Your task to perform on an android device: change your default location settings in chrome Image 0: 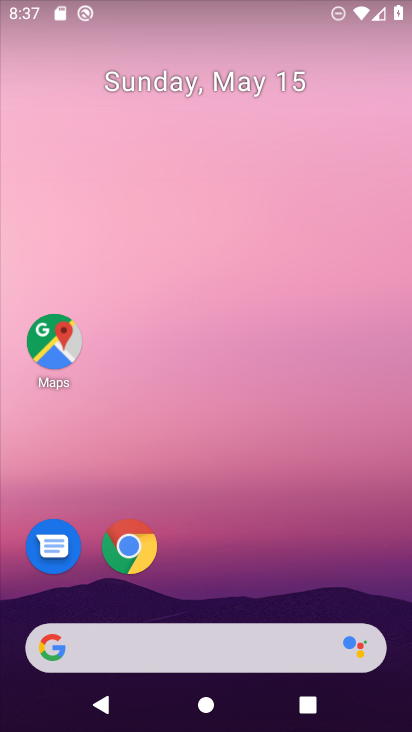
Step 0: click (131, 533)
Your task to perform on an android device: change your default location settings in chrome Image 1: 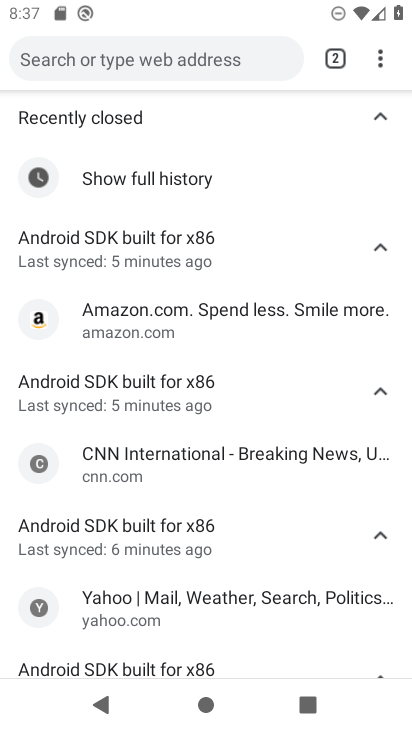
Step 1: click (378, 59)
Your task to perform on an android device: change your default location settings in chrome Image 2: 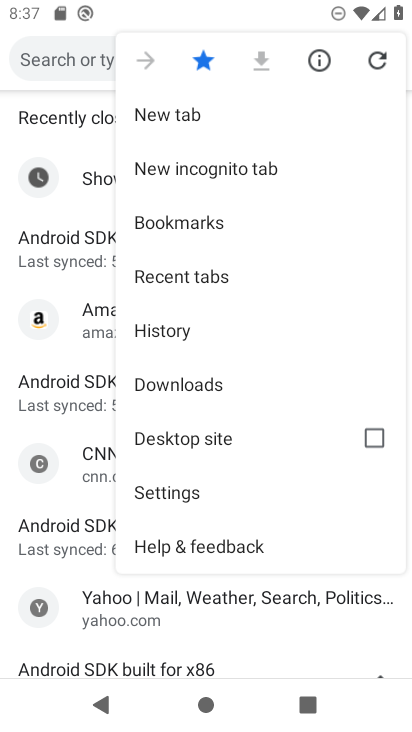
Step 2: click (210, 494)
Your task to perform on an android device: change your default location settings in chrome Image 3: 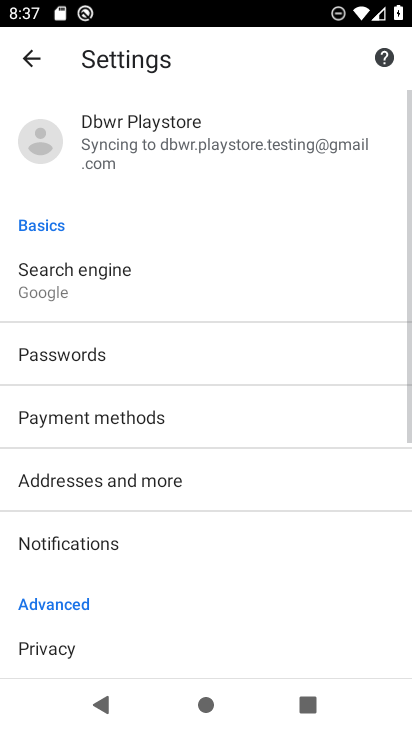
Step 3: drag from (220, 577) to (224, 218)
Your task to perform on an android device: change your default location settings in chrome Image 4: 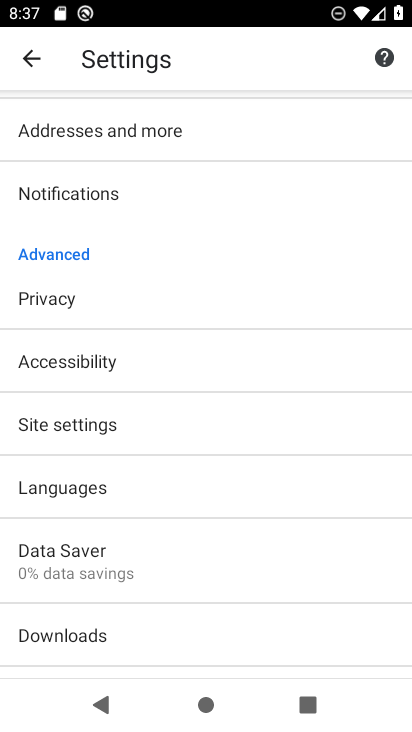
Step 4: click (222, 420)
Your task to perform on an android device: change your default location settings in chrome Image 5: 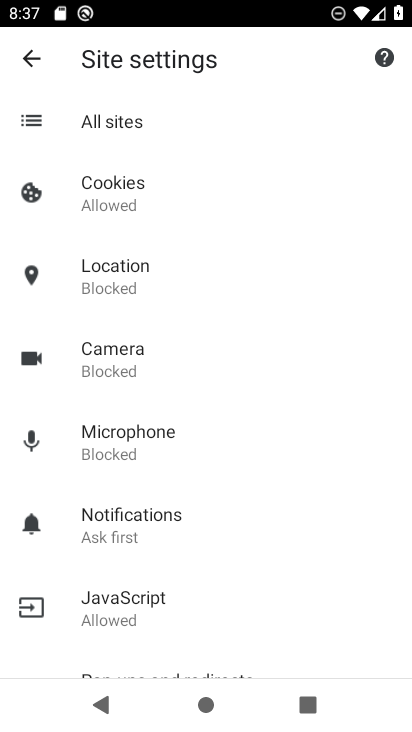
Step 5: click (177, 268)
Your task to perform on an android device: change your default location settings in chrome Image 6: 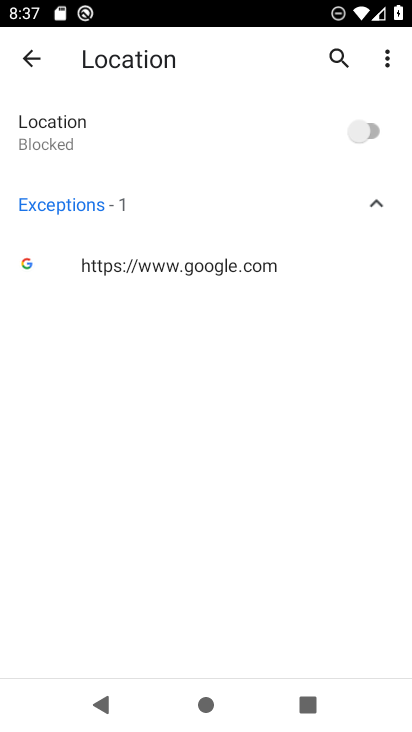
Step 6: click (364, 127)
Your task to perform on an android device: change your default location settings in chrome Image 7: 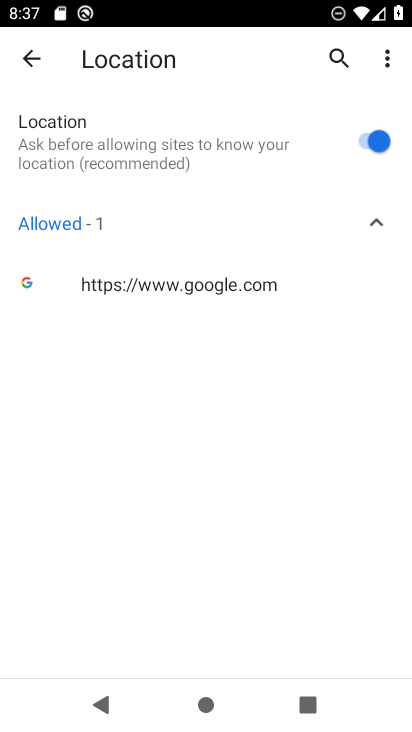
Step 7: task complete